Your task to perform on an android device: delete location history Image 0: 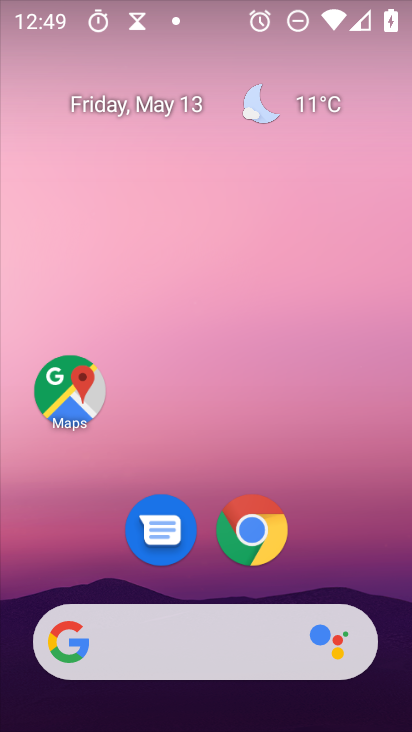
Step 0: press home button
Your task to perform on an android device: delete location history Image 1: 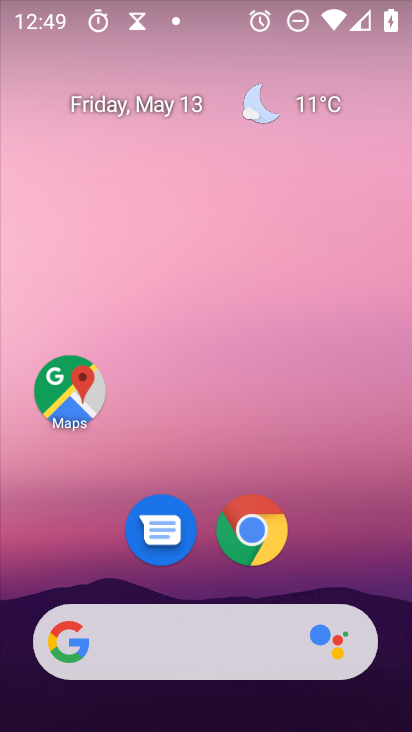
Step 1: drag from (199, 628) to (317, 101)
Your task to perform on an android device: delete location history Image 2: 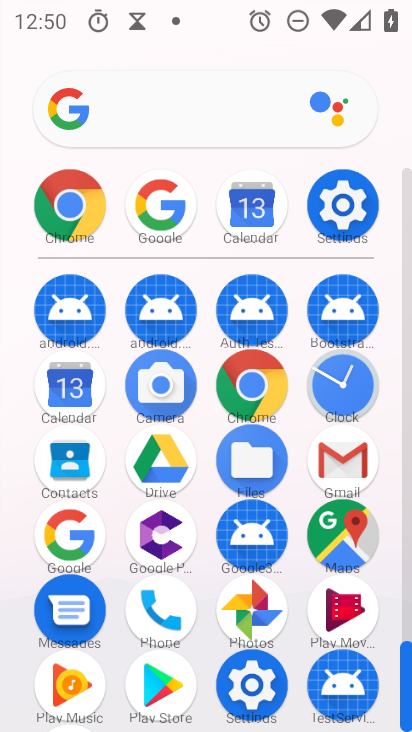
Step 2: click (345, 551)
Your task to perform on an android device: delete location history Image 3: 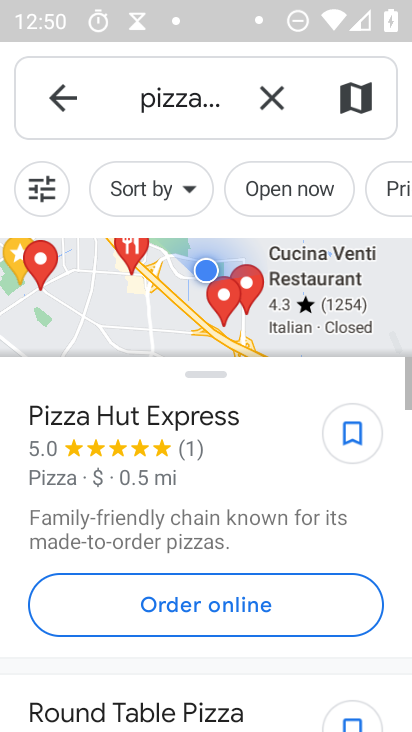
Step 3: click (62, 95)
Your task to perform on an android device: delete location history Image 4: 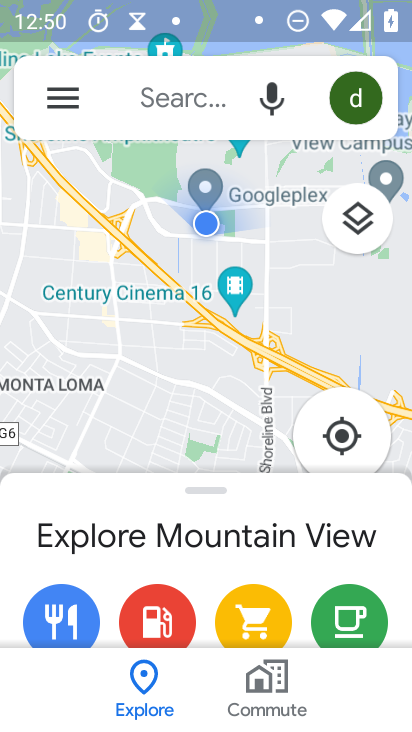
Step 4: click (62, 95)
Your task to perform on an android device: delete location history Image 5: 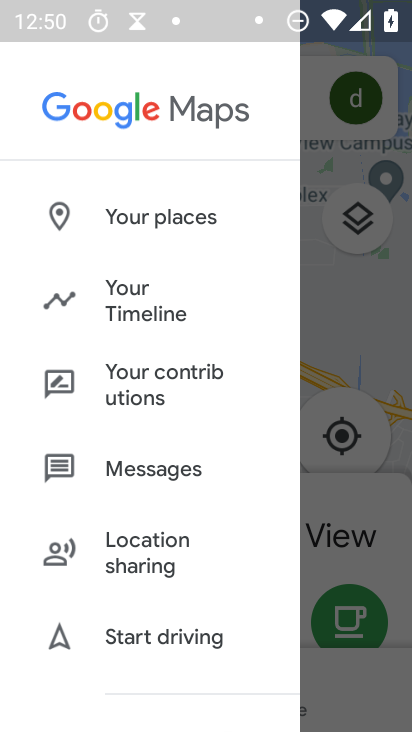
Step 5: click (138, 300)
Your task to perform on an android device: delete location history Image 6: 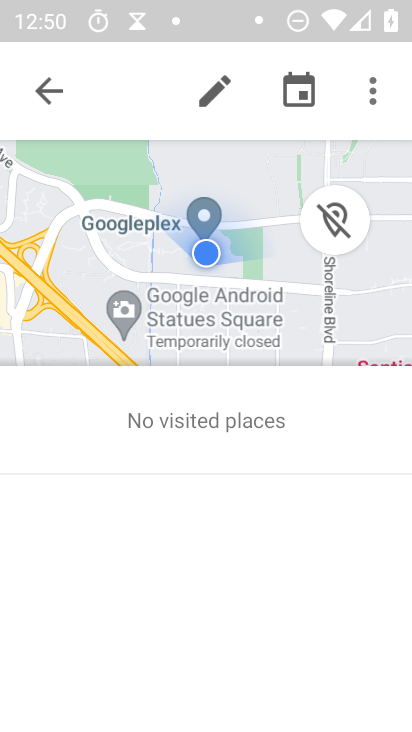
Step 6: click (372, 98)
Your task to perform on an android device: delete location history Image 7: 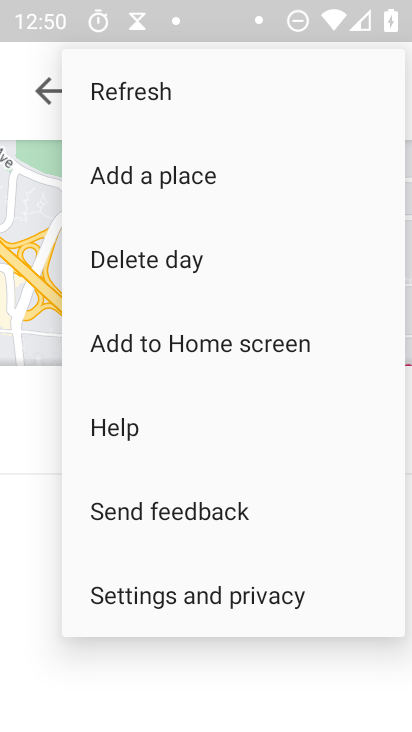
Step 7: click (166, 589)
Your task to perform on an android device: delete location history Image 8: 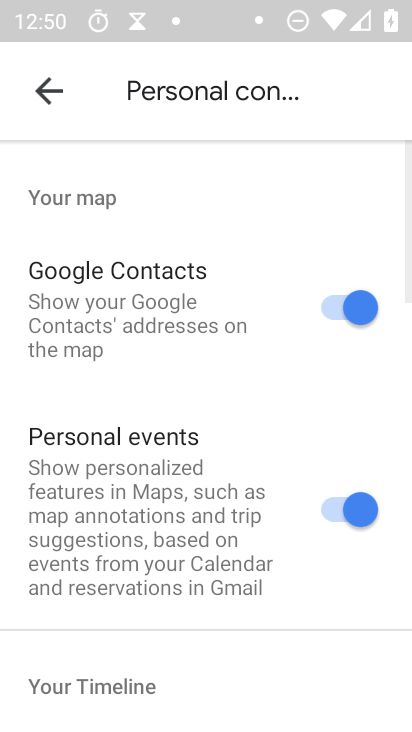
Step 8: drag from (183, 601) to (316, 59)
Your task to perform on an android device: delete location history Image 9: 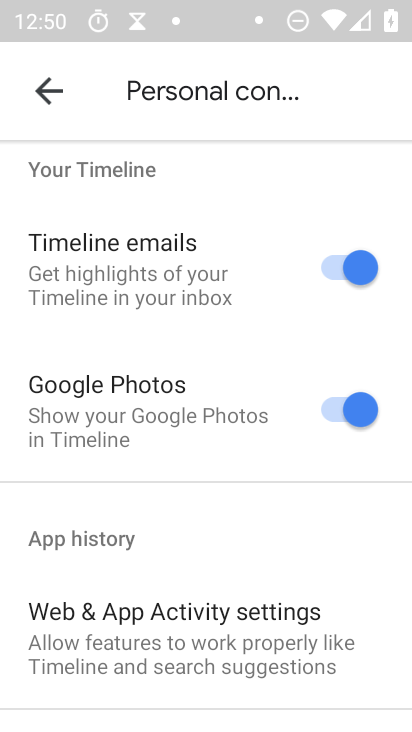
Step 9: drag from (173, 661) to (242, 89)
Your task to perform on an android device: delete location history Image 10: 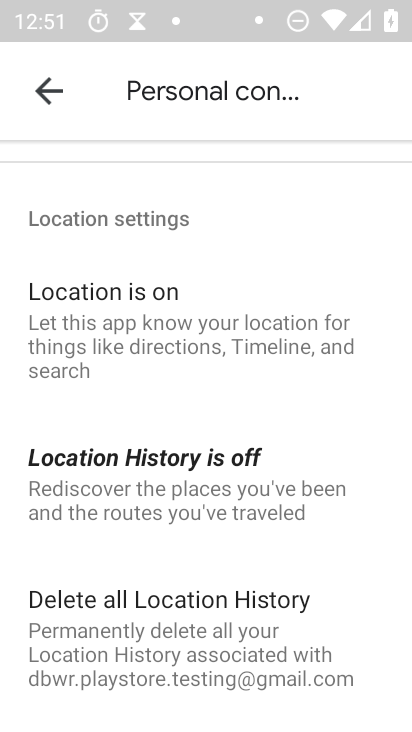
Step 10: click (130, 606)
Your task to perform on an android device: delete location history Image 11: 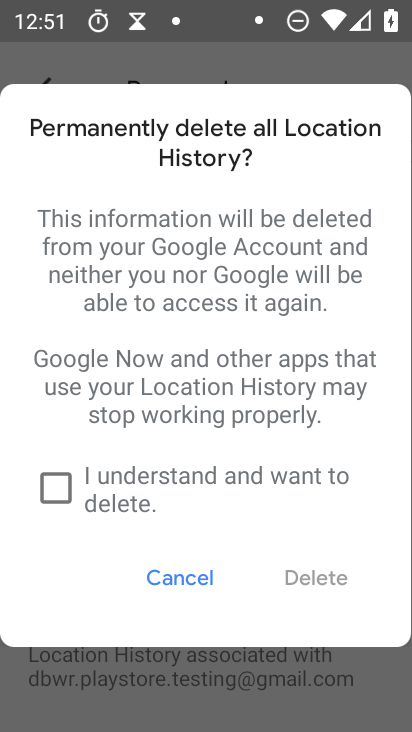
Step 11: click (55, 490)
Your task to perform on an android device: delete location history Image 12: 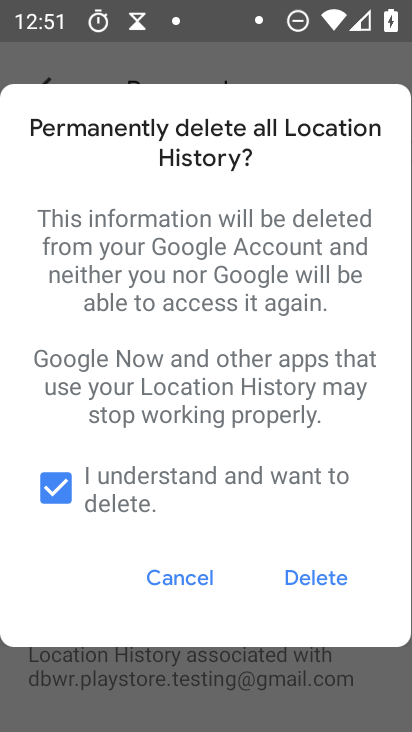
Step 12: click (312, 577)
Your task to perform on an android device: delete location history Image 13: 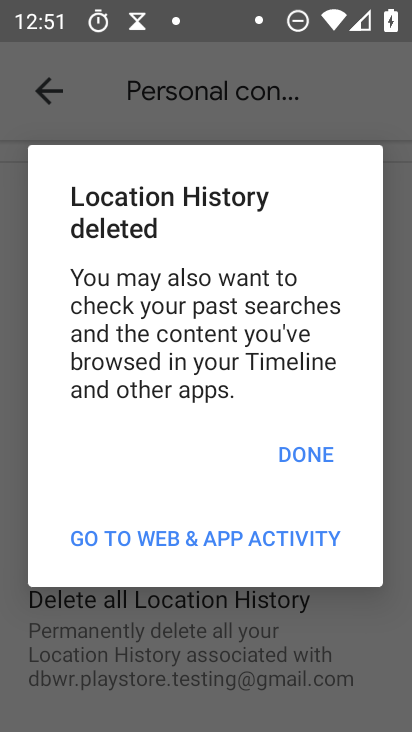
Step 13: click (298, 456)
Your task to perform on an android device: delete location history Image 14: 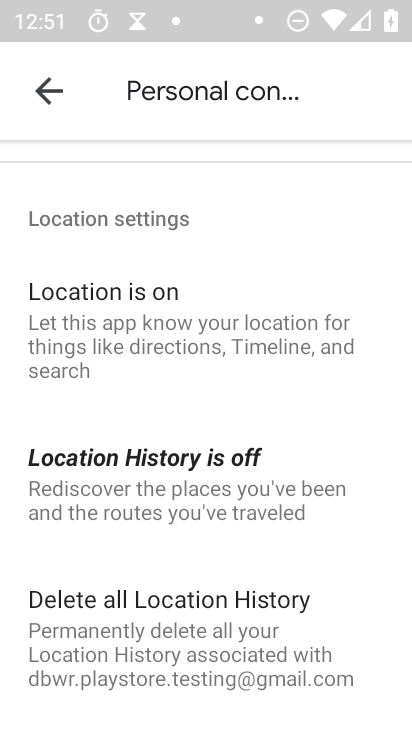
Step 14: task complete